Your task to perform on an android device: open sync settings in chrome Image 0: 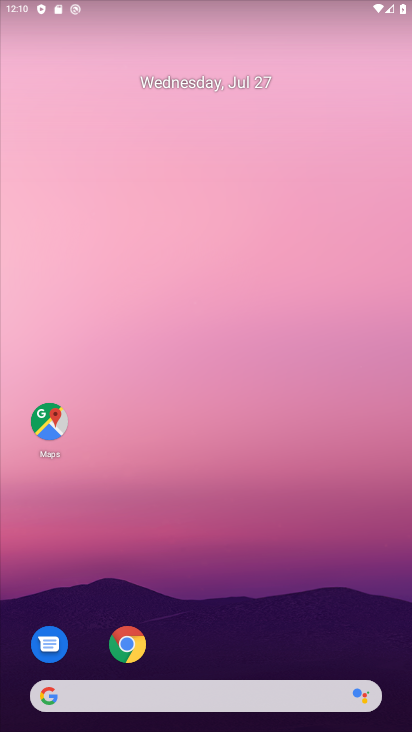
Step 0: press home button
Your task to perform on an android device: open sync settings in chrome Image 1: 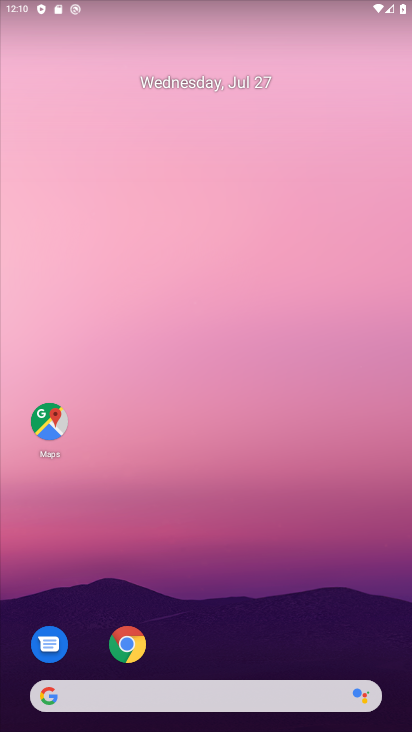
Step 1: drag from (264, 577) to (249, 124)
Your task to perform on an android device: open sync settings in chrome Image 2: 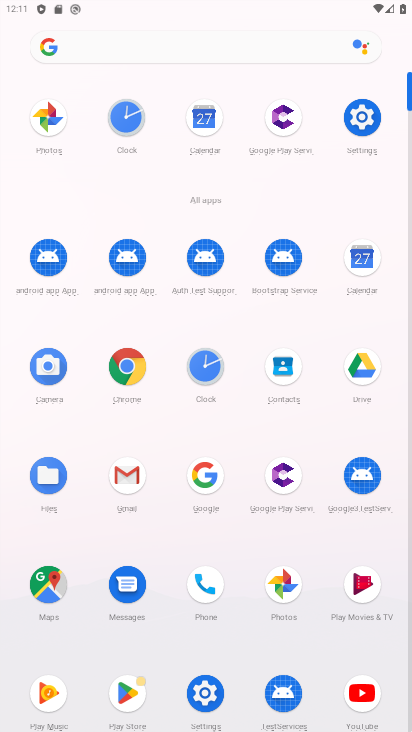
Step 2: click (132, 368)
Your task to perform on an android device: open sync settings in chrome Image 3: 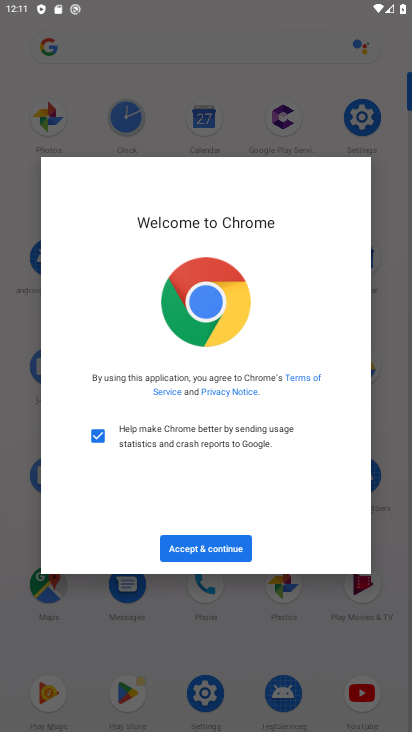
Step 3: click (205, 562)
Your task to perform on an android device: open sync settings in chrome Image 4: 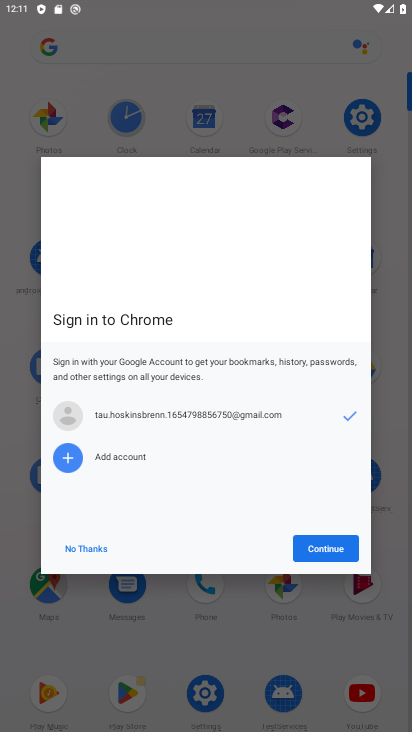
Step 4: click (335, 540)
Your task to perform on an android device: open sync settings in chrome Image 5: 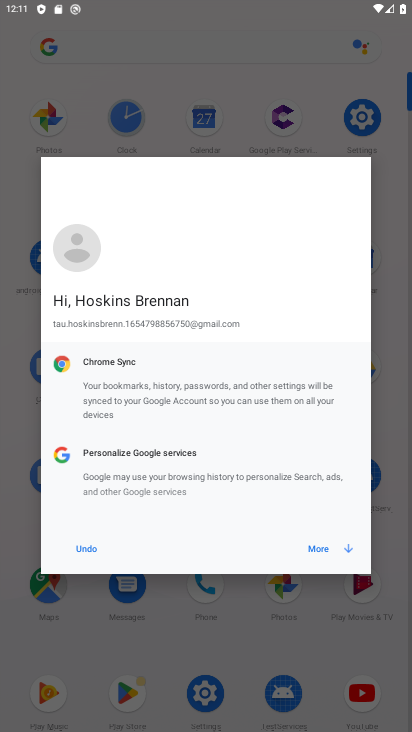
Step 5: click (335, 540)
Your task to perform on an android device: open sync settings in chrome Image 6: 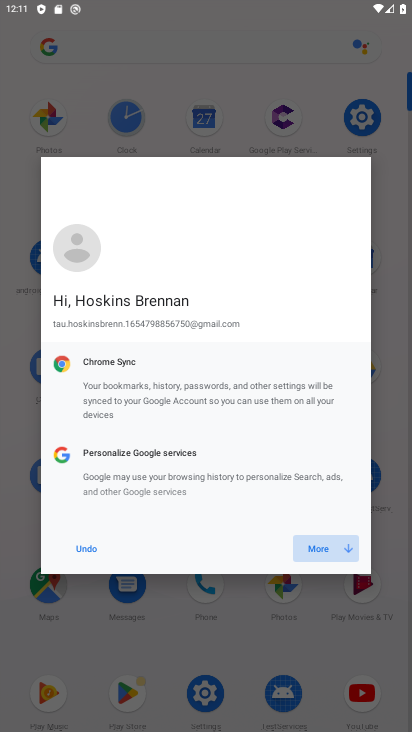
Step 6: click (335, 542)
Your task to perform on an android device: open sync settings in chrome Image 7: 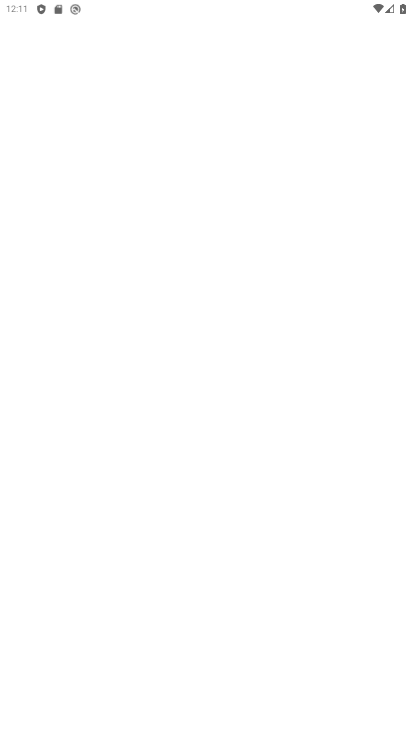
Step 7: click (335, 542)
Your task to perform on an android device: open sync settings in chrome Image 8: 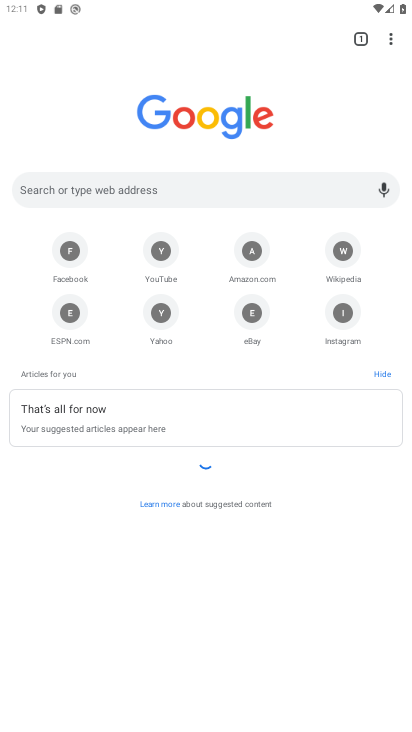
Step 8: drag from (383, 33) to (260, 339)
Your task to perform on an android device: open sync settings in chrome Image 9: 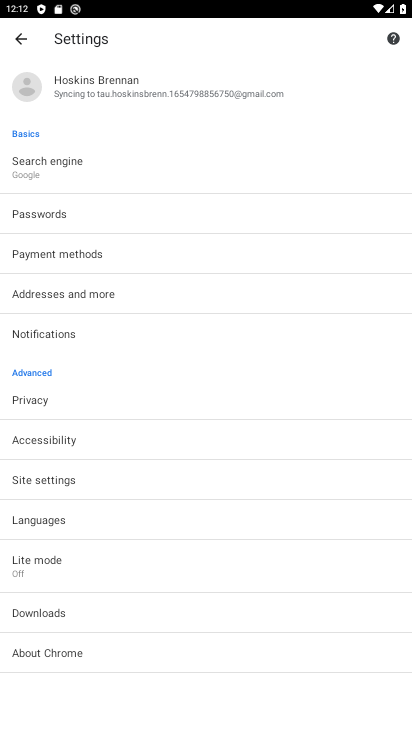
Step 9: click (140, 91)
Your task to perform on an android device: open sync settings in chrome Image 10: 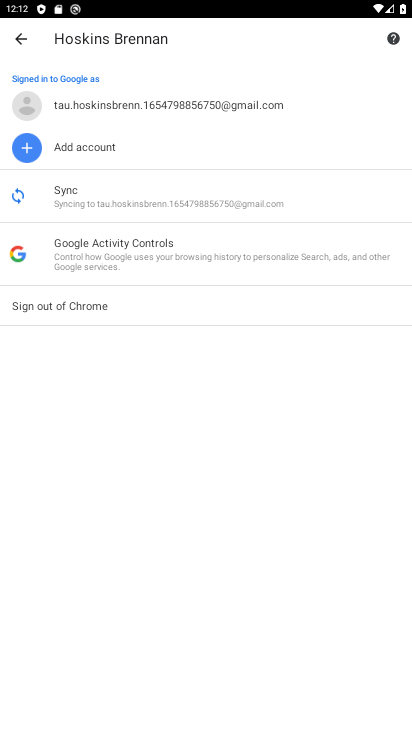
Step 10: click (59, 203)
Your task to perform on an android device: open sync settings in chrome Image 11: 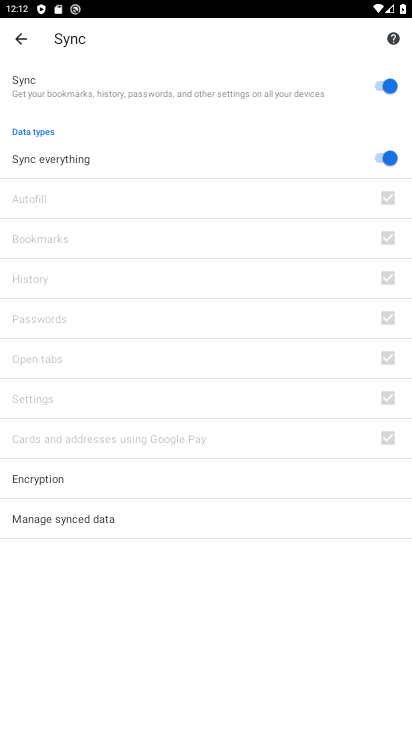
Step 11: task complete